Your task to perform on an android device: Play the last video I watched on Youtube Image 0: 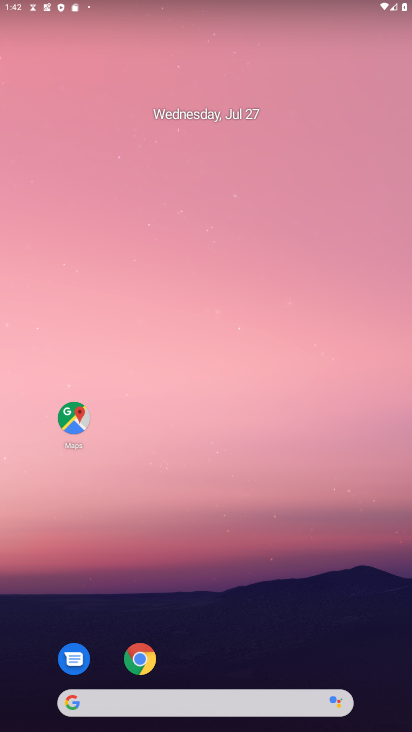
Step 0: drag from (217, 646) to (234, 101)
Your task to perform on an android device: Play the last video I watched on Youtube Image 1: 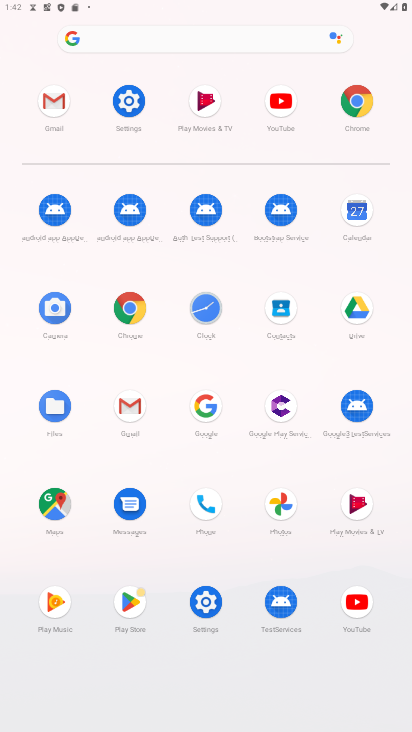
Step 1: click (357, 591)
Your task to perform on an android device: Play the last video I watched on Youtube Image 2: 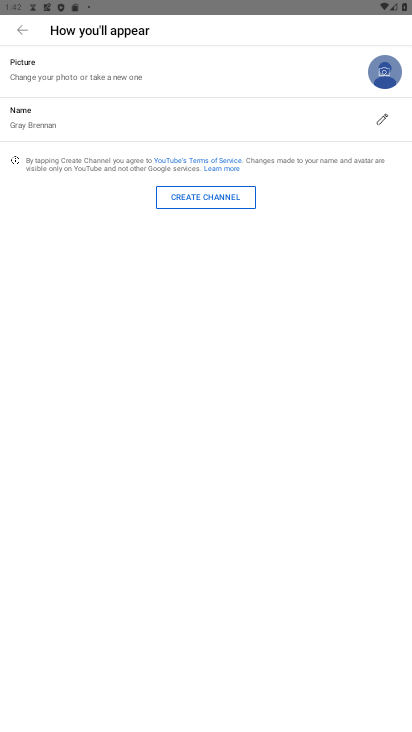
Step 2: click (18, 28)
Your task to perform on an android device: Play the last video I watched on Youtube Image 3: 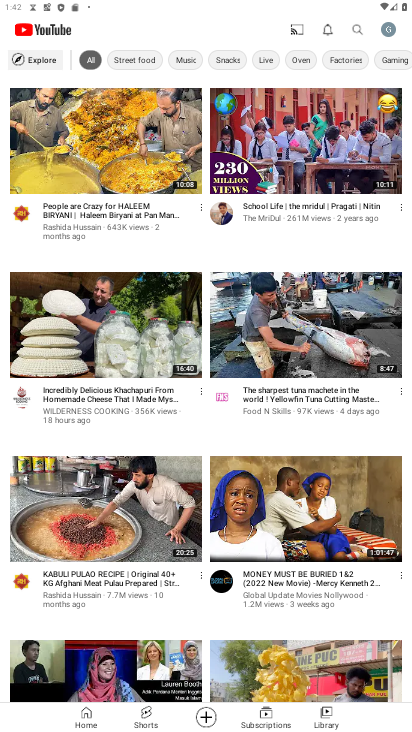
Step 3: click (315, 719)
Your task to perform on an android device: Play the last video I watched on Youtube Image 4: 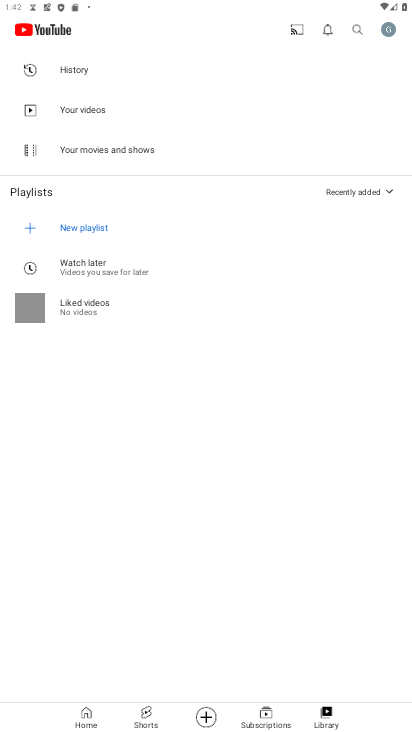
Step 4: click (52, 62)
Your task to perform on an android device: Play the last video I watched on Youtube Image 5: 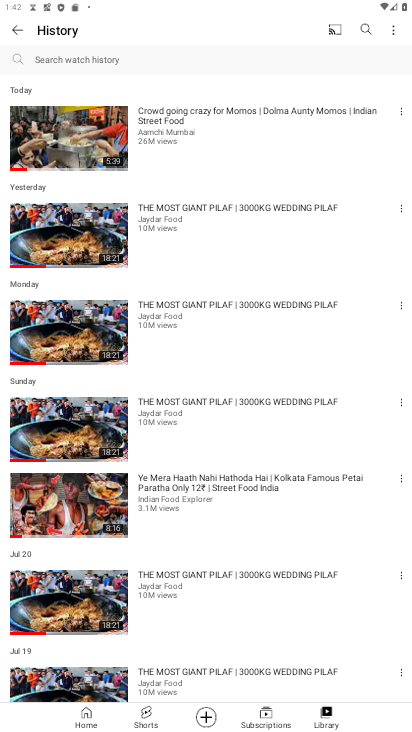
Step 5: click (58, 138)
Your task to perform on an android device: Play the last video I watched on Youtube Image 6: 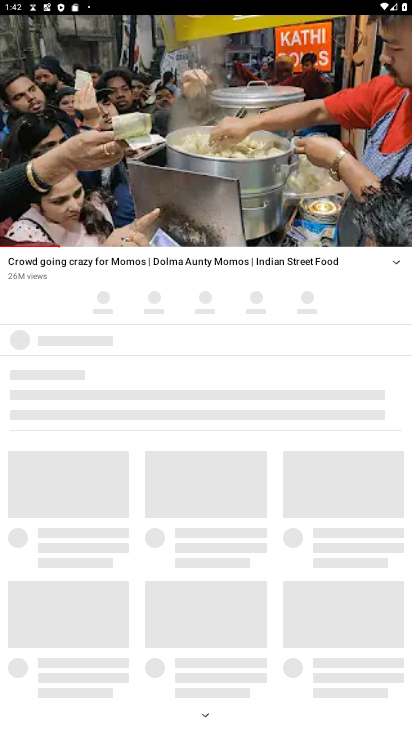
Step 6: task complete